Your task to perform on an android device: Go to notification settings Image 0: 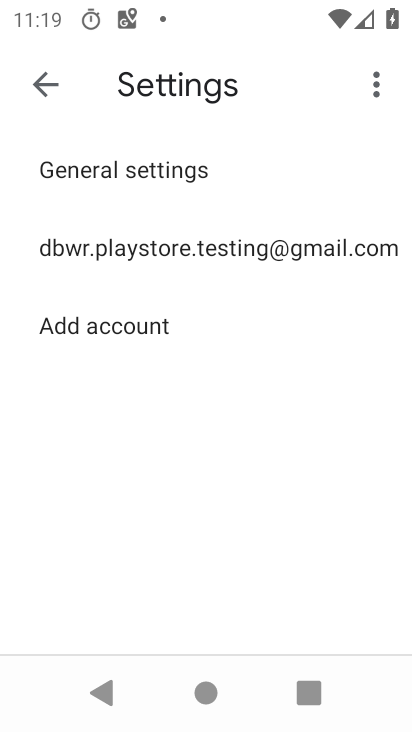
Step 0: press home button
Your task to perform on an android device: Go to notification settings Image 1: 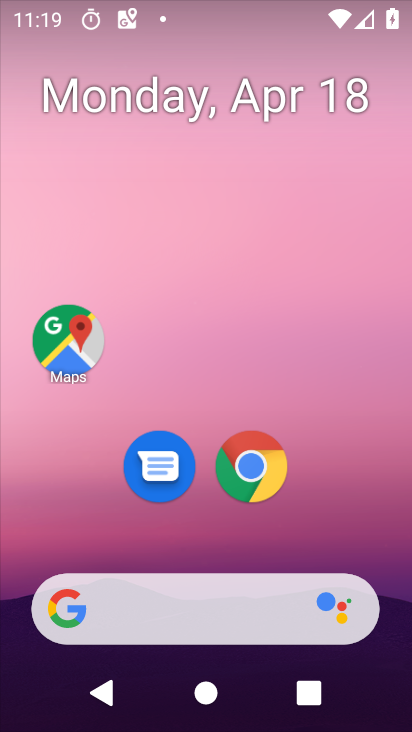
Step 1: drag from (208, 573) to (262, 39)
Your task to perform on an android device: Go to notification settings Image 2: 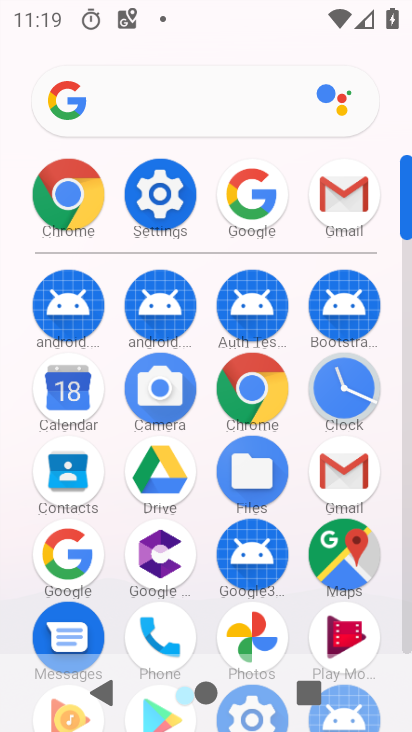
Step 2: click (187, 203)
Your task to perform on an android device: Go to notification settings Image 3: 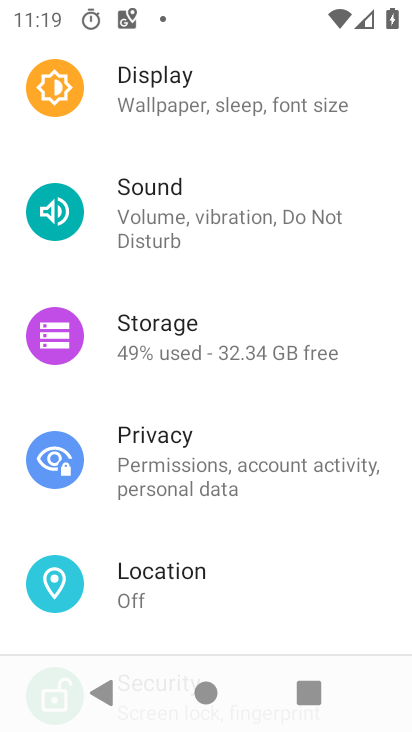
Step 3: drag from (214, 171) to (203, 507)
Your task to perform on an android device: Go to notification settings Image 4: 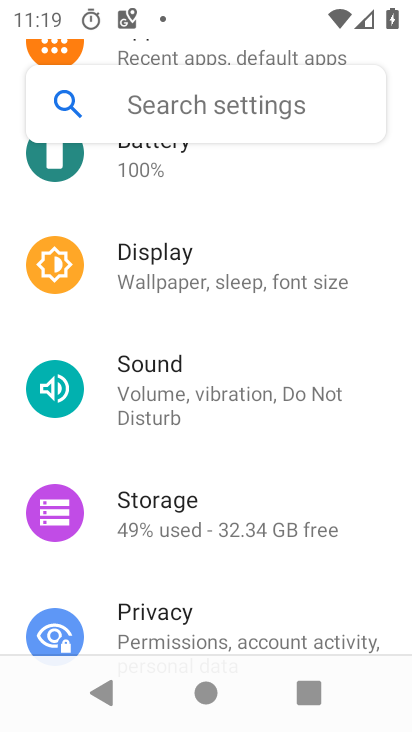
Step 4: drag from (220, 356) to (193, 613)
Your task to perform on an android device: Go to notification settings Image 5: 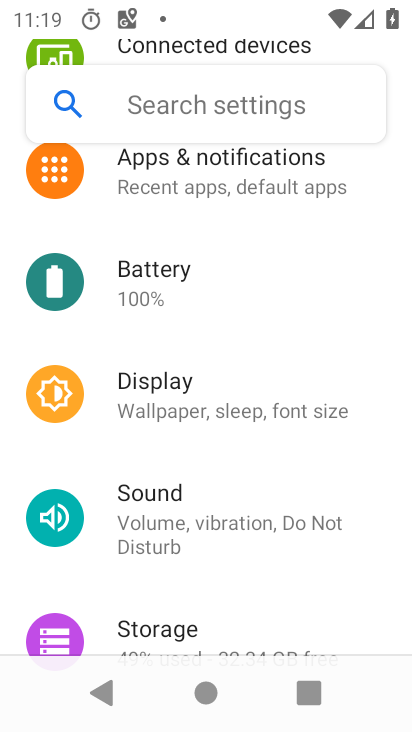
Step 5: drag from (200, 283) to (214, 543)
Your task to perform on an android device: Go to notification settings Image 6: 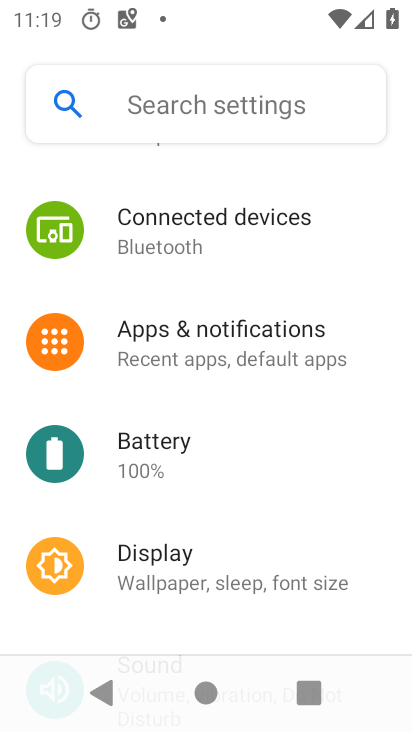
Step 6: click (262, 328)
Your task to perform on an android device: Go to notification settings Image 7: 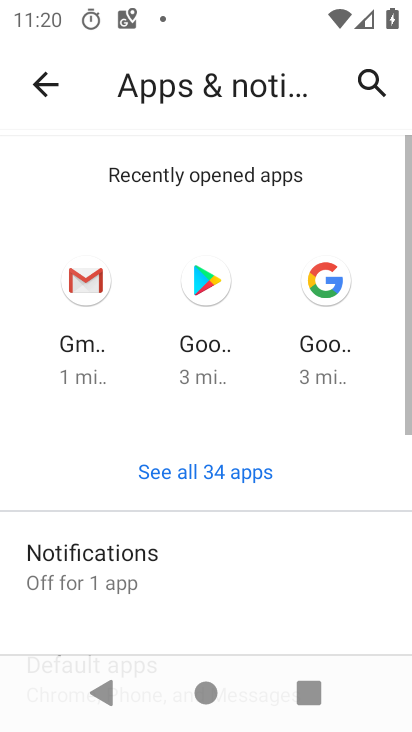
Step 7: drag from (269, 537) to (340, 255)
Your task to perform on an android device: Go to notification settings Image 8: 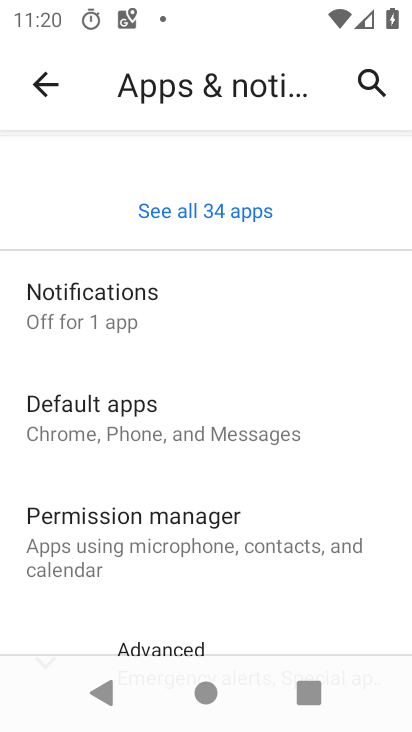
Step 8: drag from (266, 477) to (266, 267)
Your task to perform on an android device: Go to notification settings Image 9: 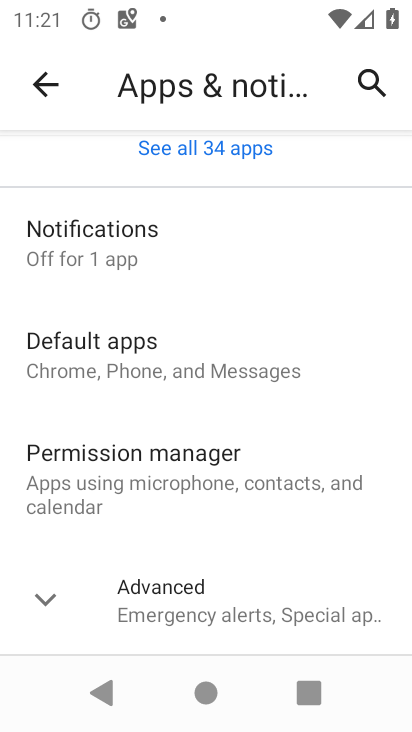
Step 9: click (143, 263)
Your task to perform on an android device: Go to notification settings Image 10: 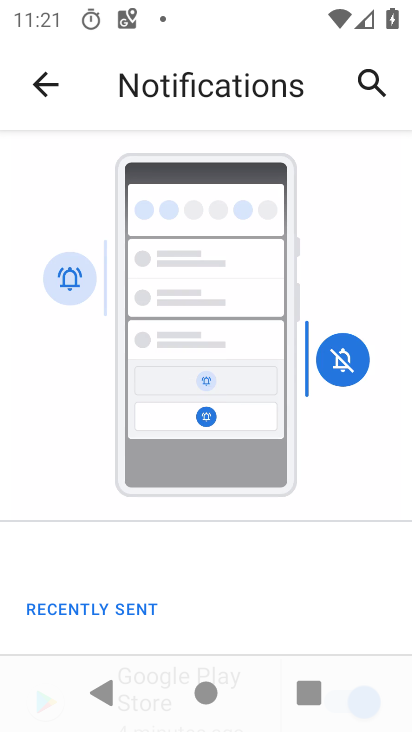
Step 10: task complete